Your task to perform on an android device: create a new album in the google photos Image 0: 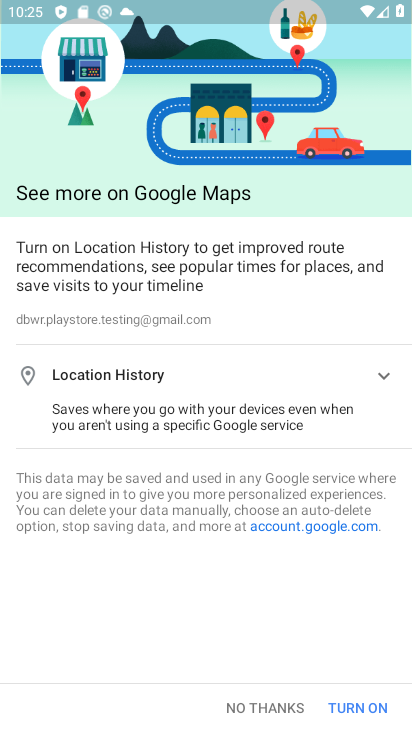
Step 0: press home button
Your task to perform on an android device: create a new album in the google photos Image 1: 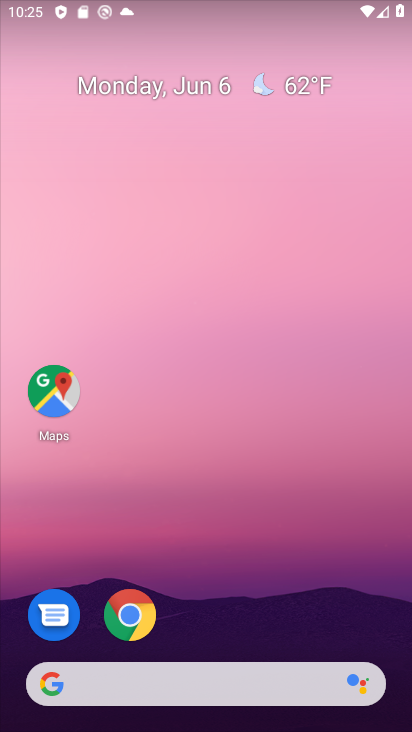
Step 1: drag from (264, 675) to (218, 192)
Your task to perform on an android device: create a new album in the google photos Image 2: 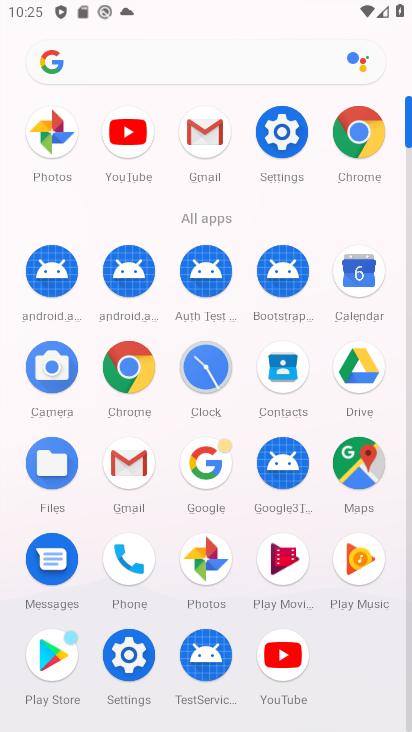
Step 2: click (198, 567)
Your task to perform on an android device: create a new album in the google photos Image 3: 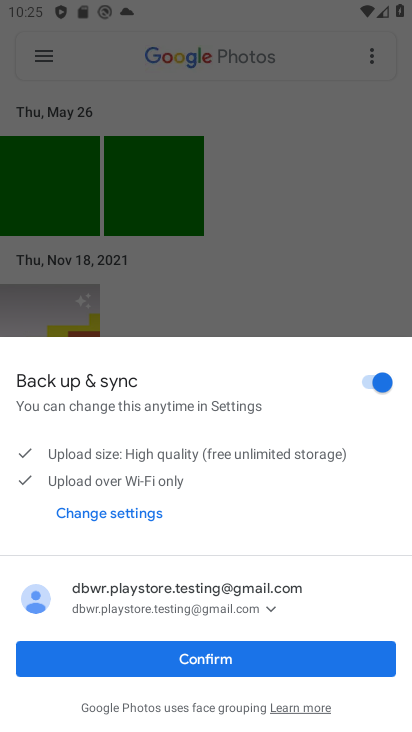
Step 3: click (234, 649)
Your task to perform on an android device: create a new album in the google photos Image 4: 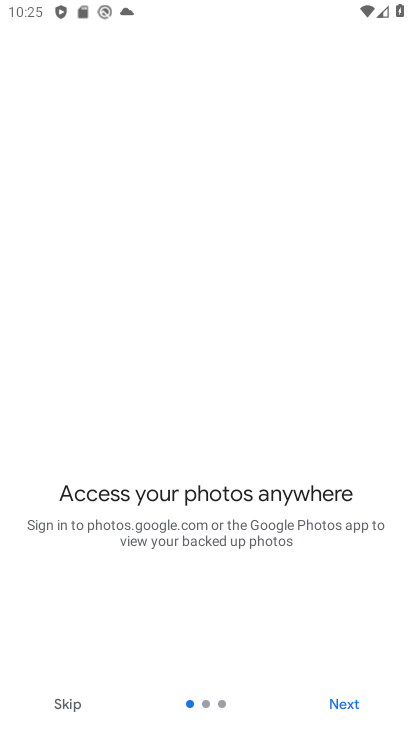
Step 4: click (54, 704)
Your task to perform on an android device: create a new album in the google photos Image 5: 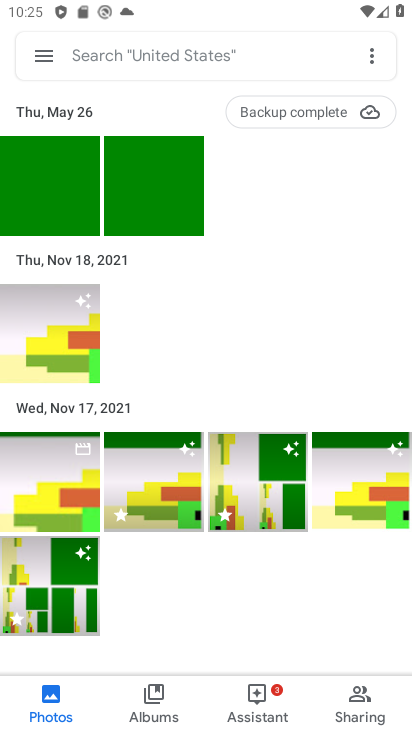
Step 5: click (275, 704)
Your task to perform on an android device: create a new album in the google photos Image 6: 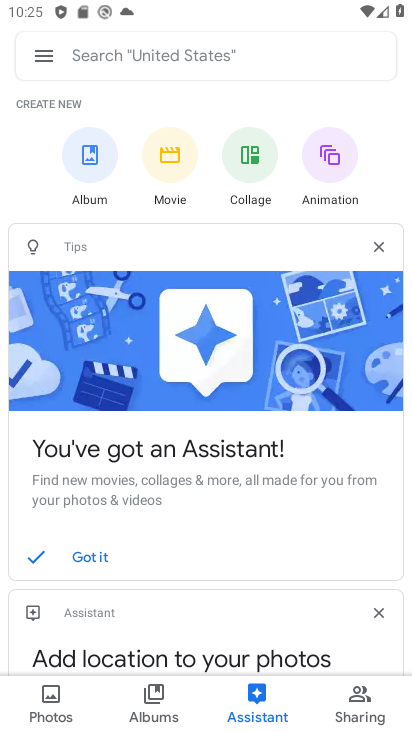
Step 6: click (95, 158)
Your task to perform on an android device: create a new album in the google photos Image 7: 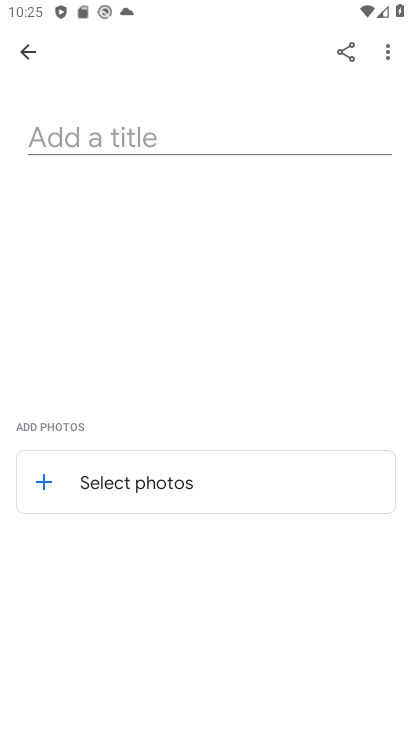
Step 7: click (183, 140)
Your task to perform on an android device: create a new album in the google photos Image 8: 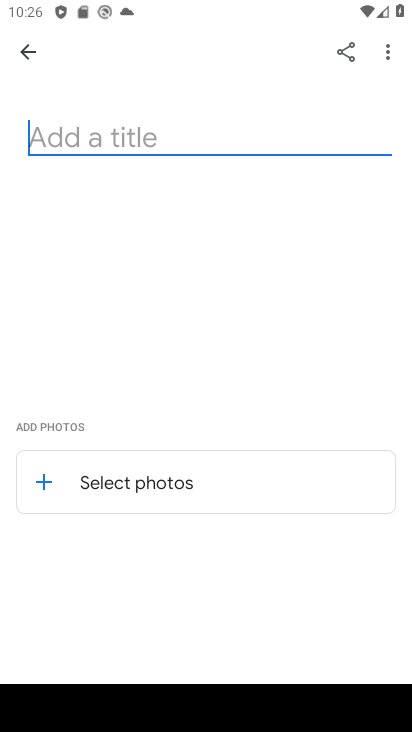
Step 8: type "nzbxmcz"
Your task to perform on an android device: create a new album in the google photos Image 9: 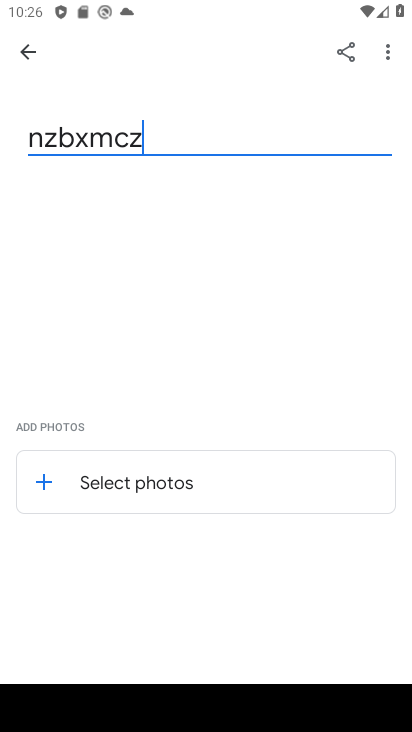
Step 9: click (168, 472)
Your task to perform on an android device: create a new album in the google photos Image 10: 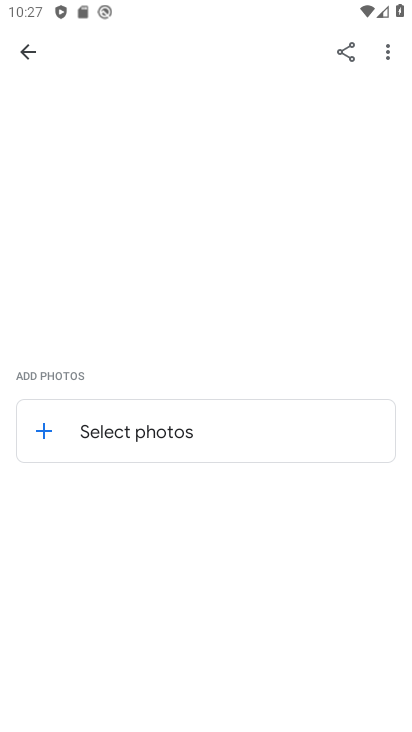
Step 10: click (214, 441)
Your task to perform on an android device: create a new album in the google photos Image 11: 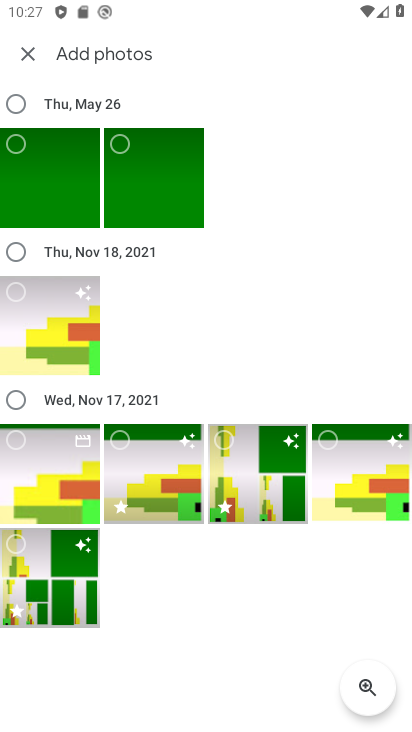
Step 11: click (9, 106)
Your task to perform on an android device: create a new album in the google photos Image 12: 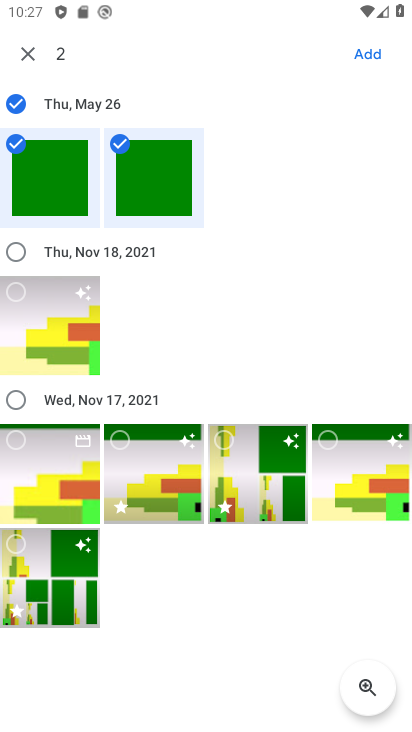
Step 12: click (20, 245)
Your task to perform on an android device: create a new album in the google photos Image 13: 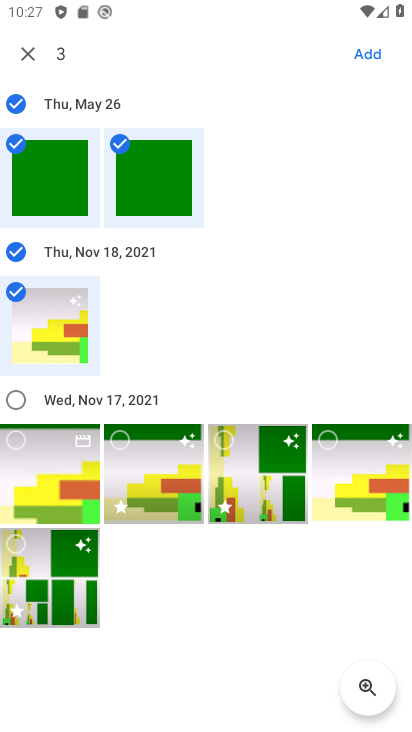
Step 13: click (24, 402)
Your task to perform on an android device: create a new album in the google photos Image 14: 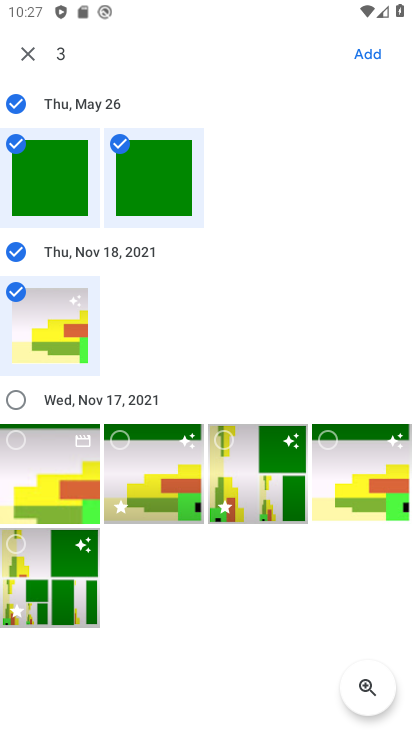
Step 14: click (364, 53)
Your task to perform on an android device: create a new album in the google photos Image 15: 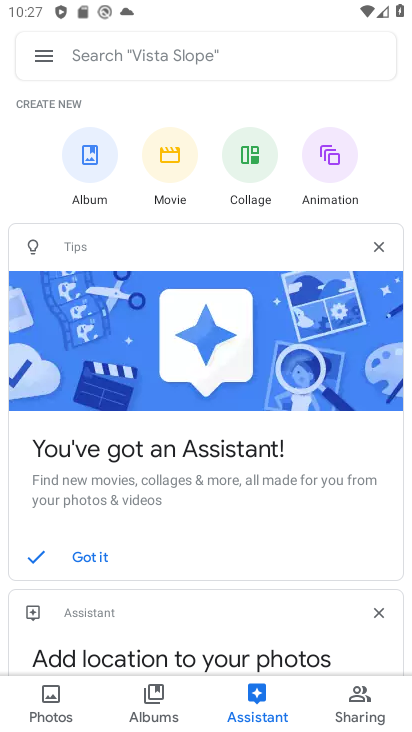
Step 15: task complete